Your task to perform on an android device: Open settings on Google Maps Image 0: 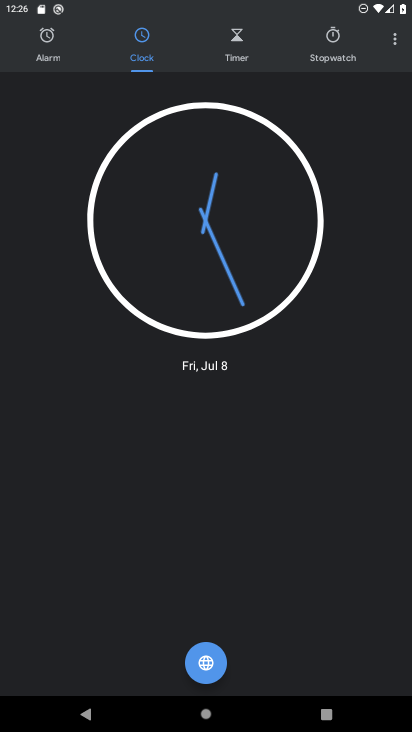
Step 0: press home button
Your task to perform on an android device: Open settings on Google Maps Image 1: 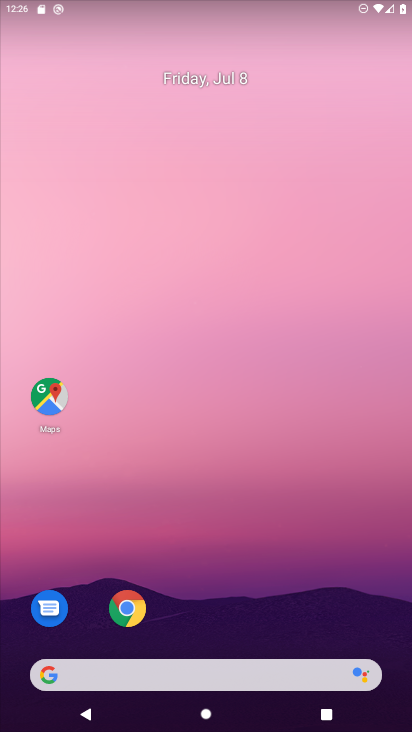
Step 1: drag from (229, 725) to (214, 151)
Your task to perform on an android device: Open settings on Google Maps Image 2: 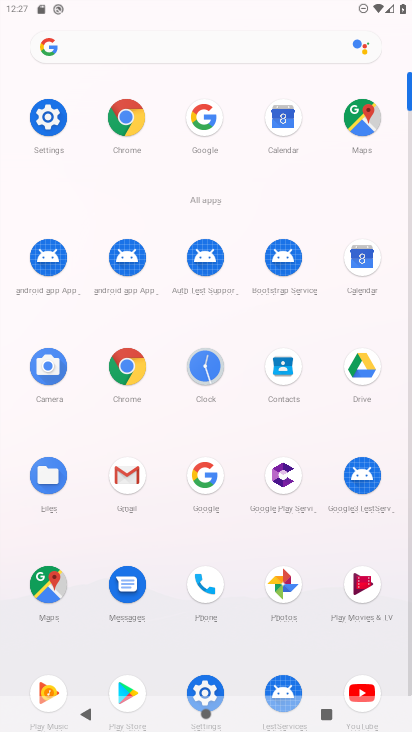
Step 2: click (53, 575)
Your task to perform on an android device: Open settings on Google Maps Image 3: 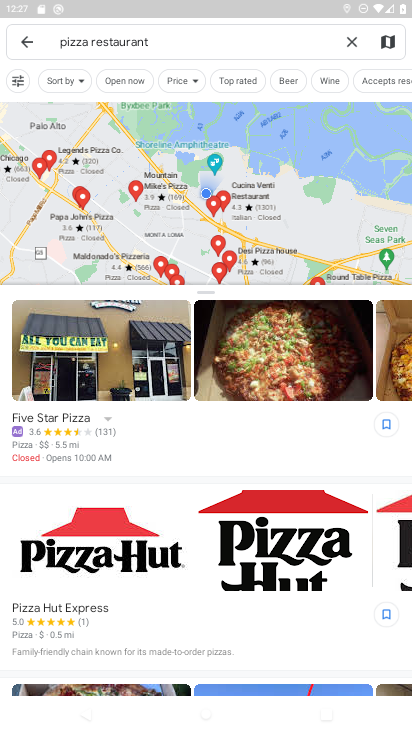
Step 3: click (31, 38)
Your task to perform on an android device: Open settings on Google Maps Image 4: 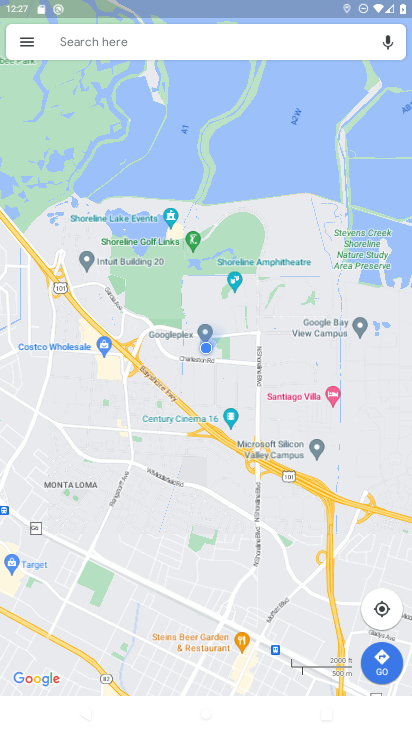
Step 4: click (31, 38)
Your task to perform on an android device: Open settings on Google Maps Image 5: 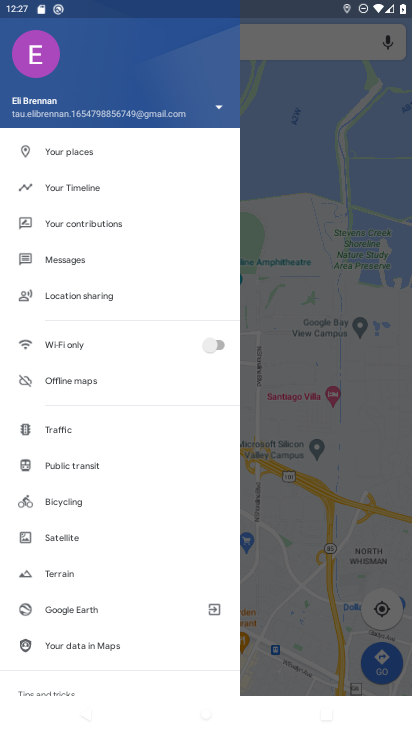
Step 5: drag from (91, 685) to (65, 353)
Your task to perform on an android device: Open settings on Google Maps Image 6: 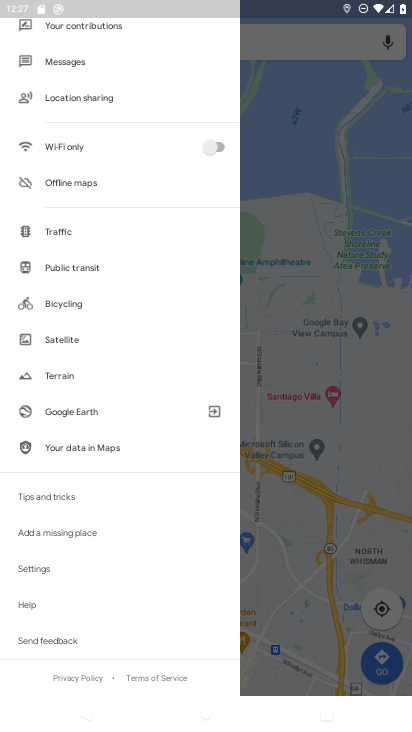
Step 6: click (37, 566)
Your task to perform on an android device: Open settings on Google Maps Image 7: 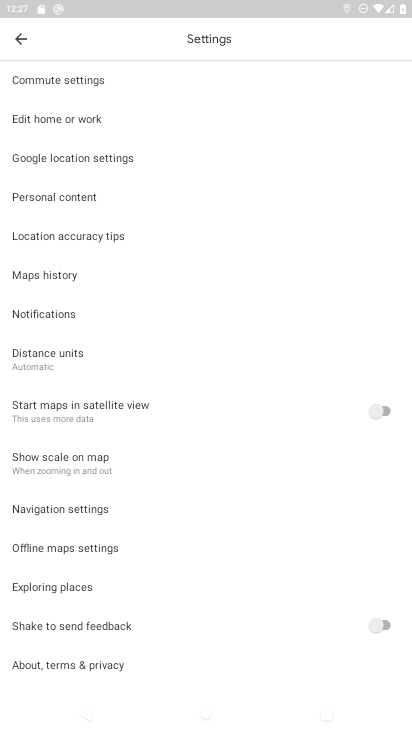
Step 7: task complete